Your task to perform on an android device: Turn off the flashlight Image 0: 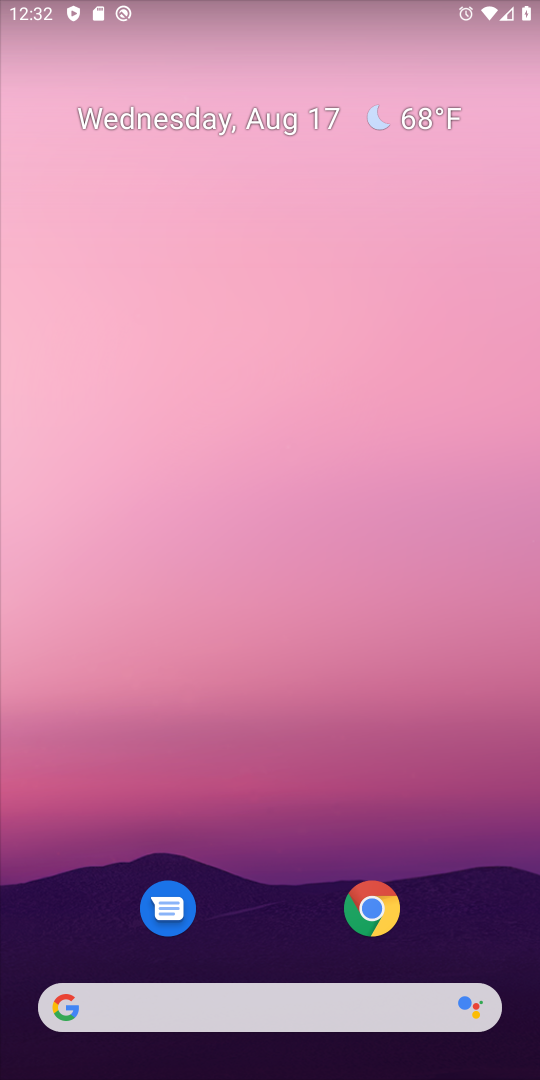
Step 0: drag from (253, 887) to (298, 339)
Your task to perform on an android device: Turn off the flashlight Image 1: 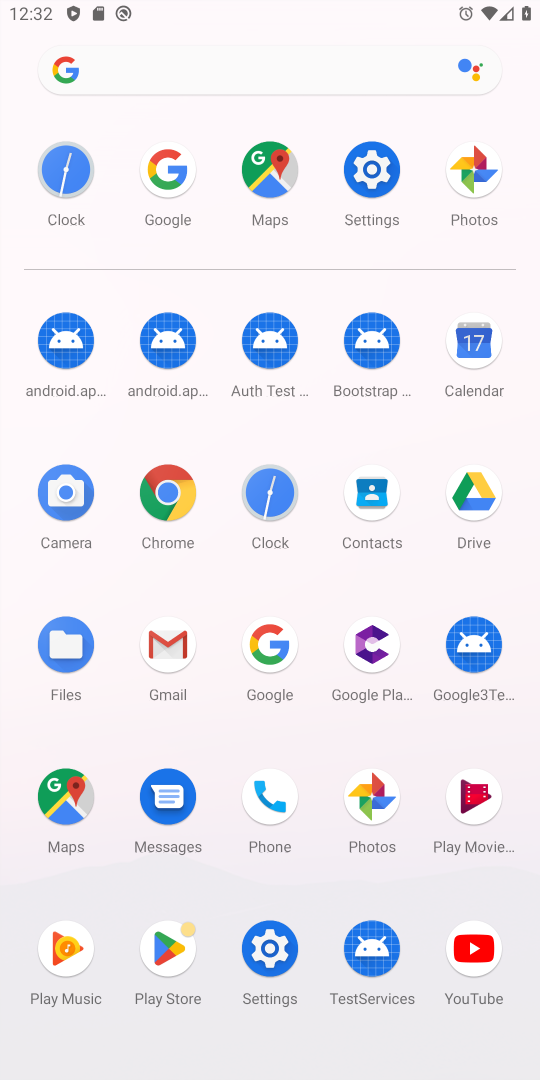
Step 1: click (371, 178)
Your task to perform on an android device: Turn off the flashlight Image 2: 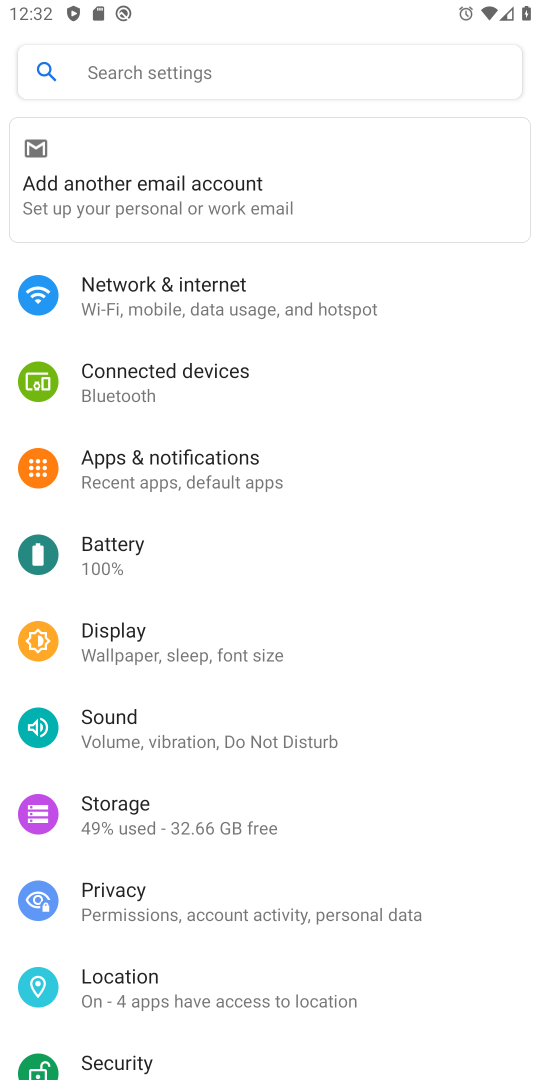
Step 2: task complete